Your task to perform on an android device: star an email in the gmail app Image 0: 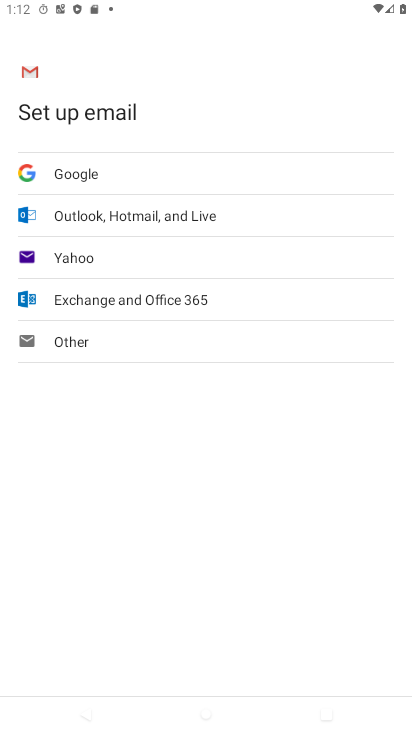
Step 0: press home button
Your task to perform on an android device: star an email in the gmail app Image 1: 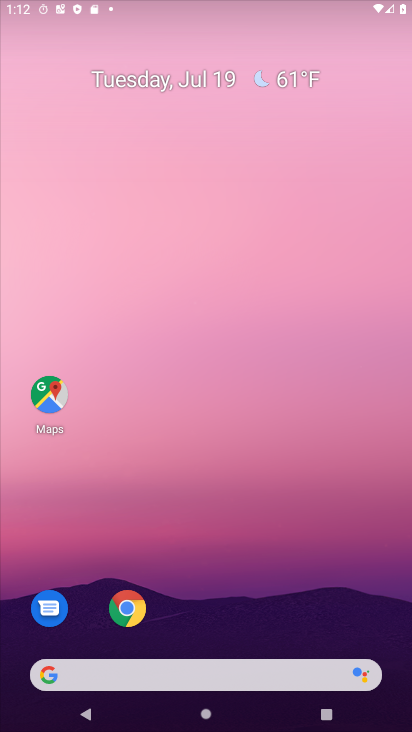
Step 1: drag from (350, 568) to (344, 4)
Your task to perform on an android device: star an email in the gmail app Image 2: 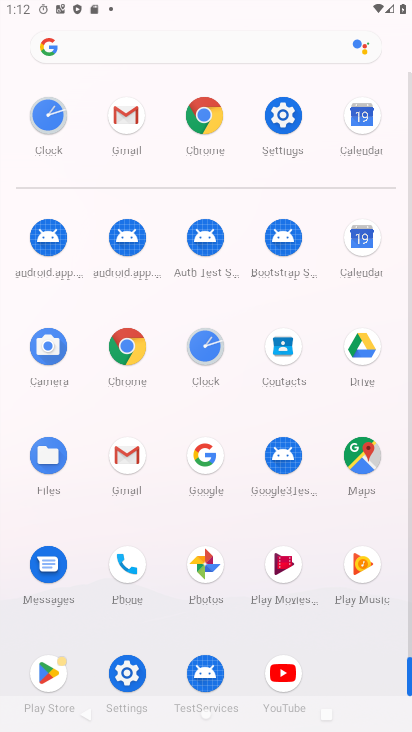
Step 2: click (129, 124)
Your task to perform on an android device: star an email in the gmail app Image 3: 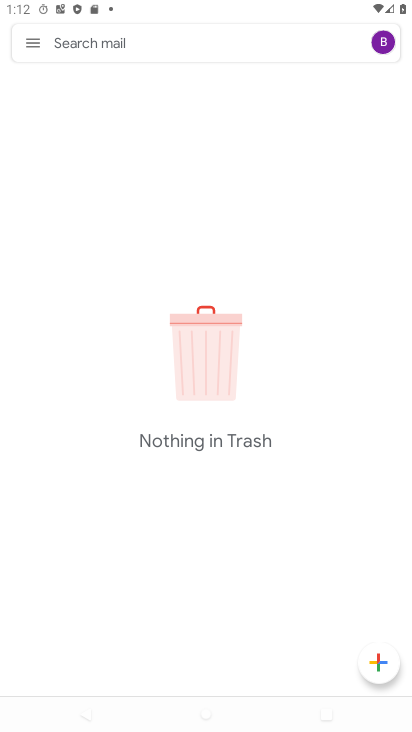
Step 3: click (18, 54)
Your task to perform on an android device: star an email in the gmail app Image 4: 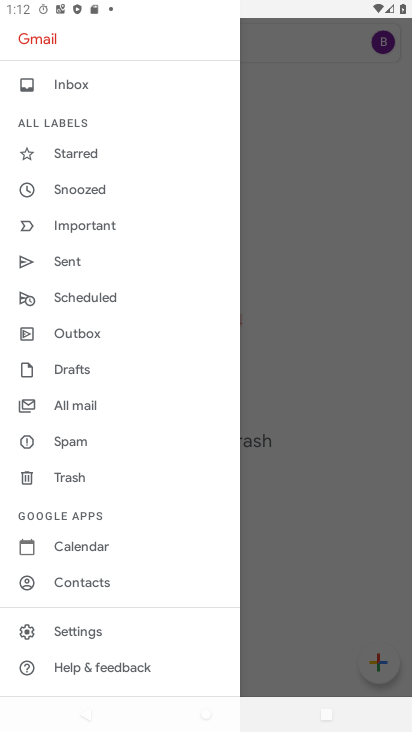
Step 4: click (56, 86)
Your task to perform on an android device: star an email in the gmail app Image 5: 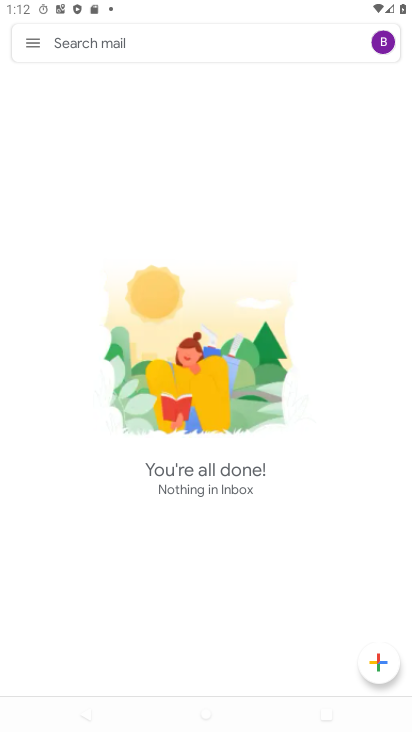
Step 5: task complete